Your task to perform on an android device: allow notifications from all sites in the chrome app Image 0: 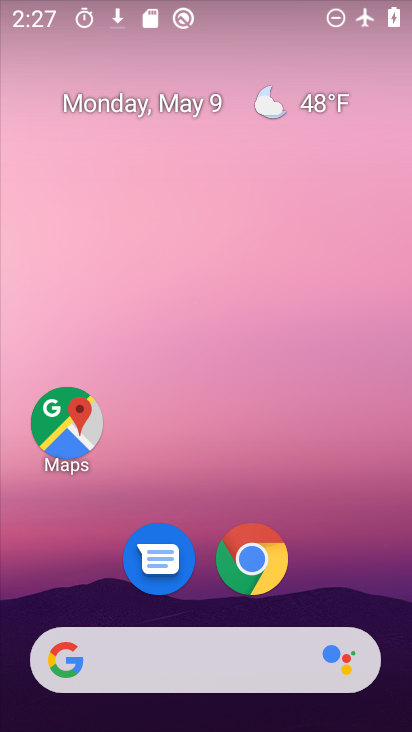
Step 0: click (397, 368)
Your task to perform on an android device: allow notifications from all sites in the chrome app Image 1: 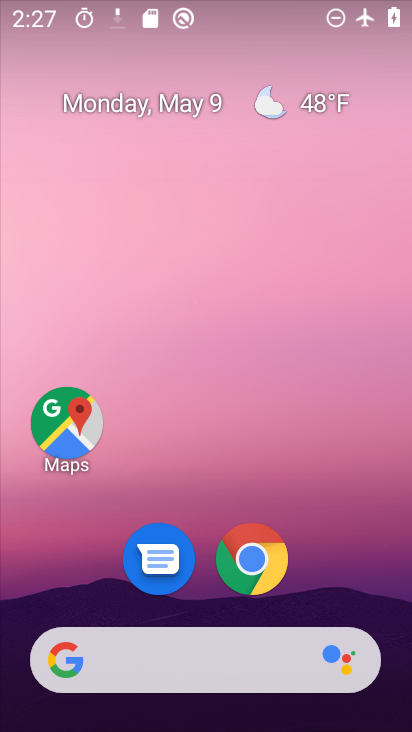
Step 1: drag from (219, 591) to (276, 18)
Your task to perform on an android device: allow notifications from all sites in the chrome app Image 2: 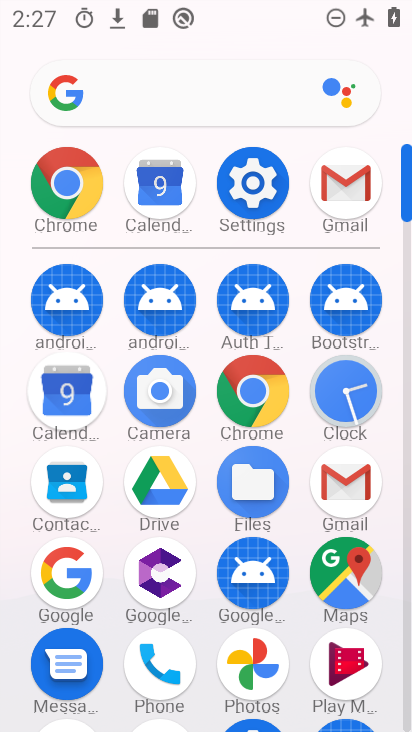
Step 2: click (253, 389)
Your task to perform on an android device: allow notifications from all sites in the chrome app Image 3: 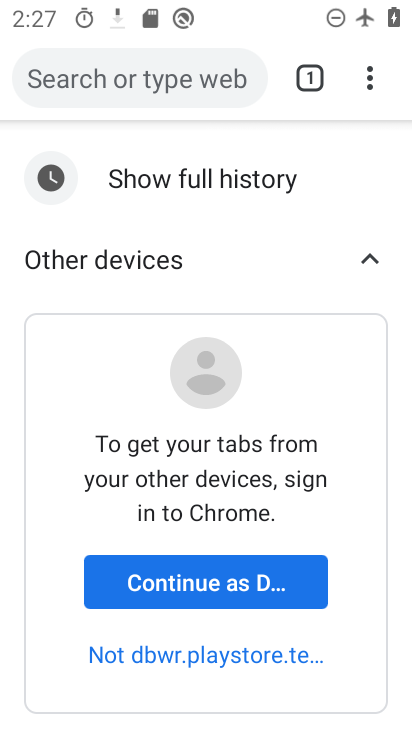
Step 3: drag from (255, 648) to (250, 280)
Your task to perform on an android device: allow notifications from all sites in the chrome app Image 4: 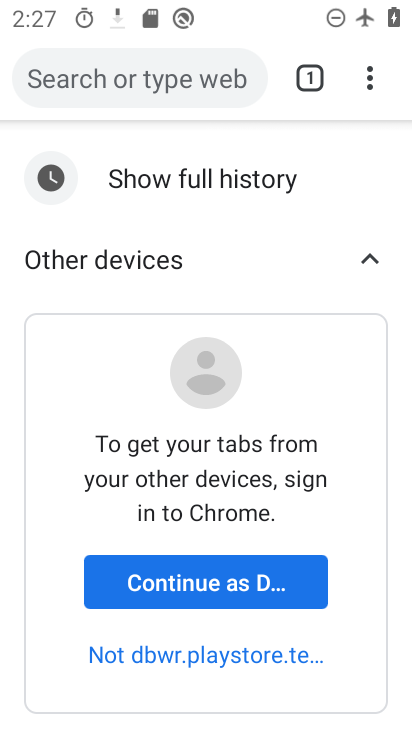
Step 4: click (369, 80)
Your task to perform on an android device: allow notifications from all sites in the chrome app Image 5: 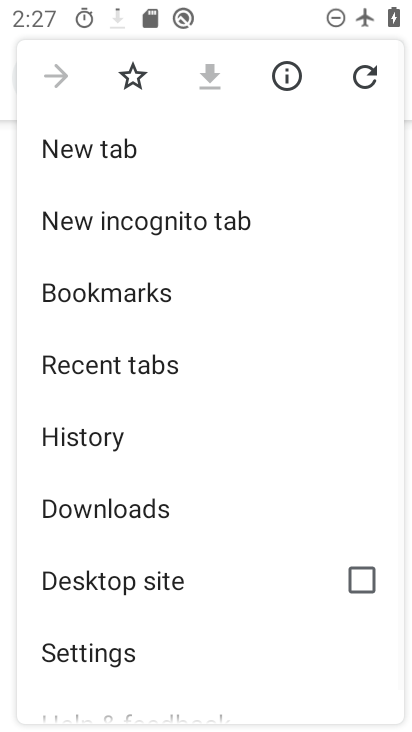
Step 5: drag from (148, 657) to (233, 229)
Your task to perform on an android device: allow notifications from all sites in the chrome app Image 6: 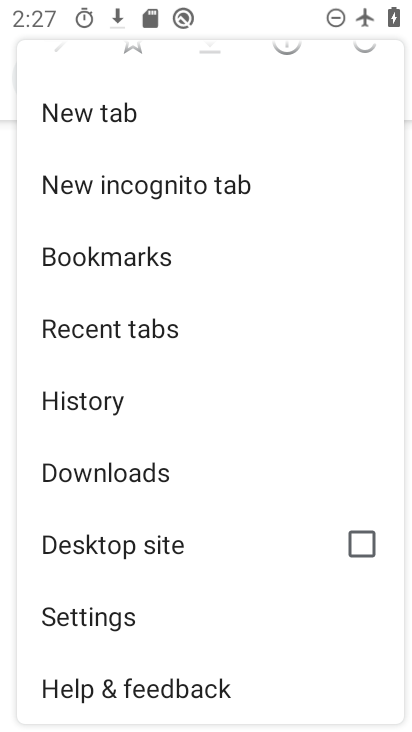
Step 6: click (139, 617)
Your task to perform on an android device: allow notifications from all sites in the chrome app Image 7: 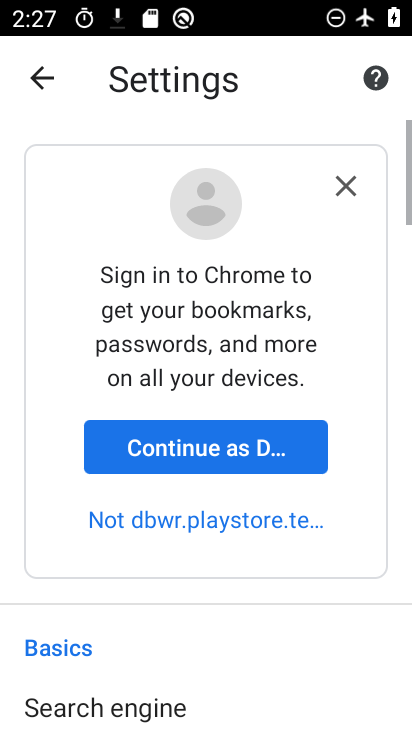
Step 7: drag from (162, 618) to (295, 288)
Your task to perform on an android device: allow notifications from all sites in the chrome app Image 8: 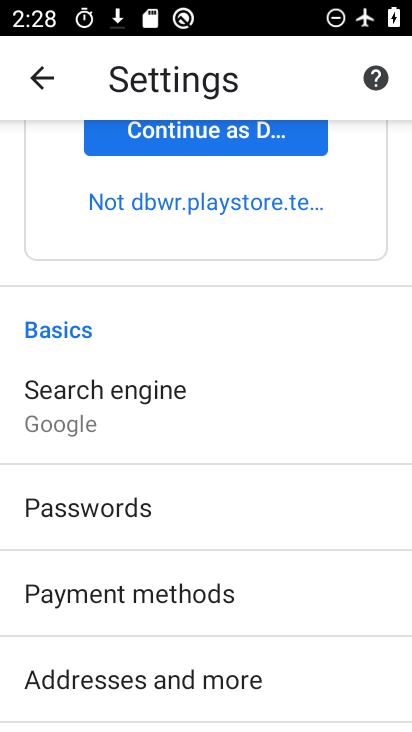
Step 8: drag from (260, 610) to (314, 238)
Your task to perform on an android device: allow notifications from all sites in the chrome app Image 9: 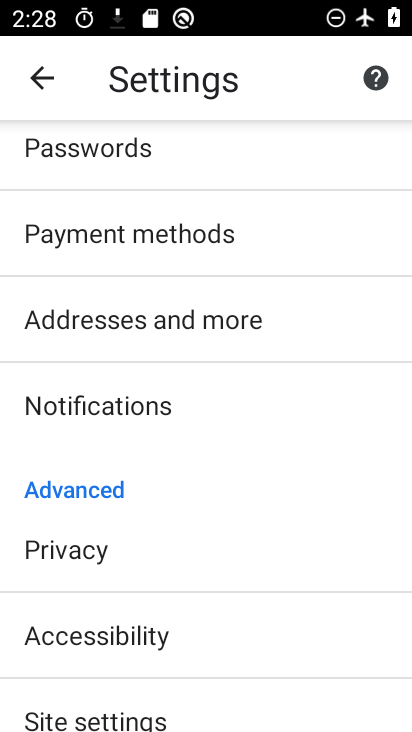
Step 9: drag from (180, 621) to (403, 106)
Your task to perform on an android device: allow notifications from all sites in the chrome app Image 10: 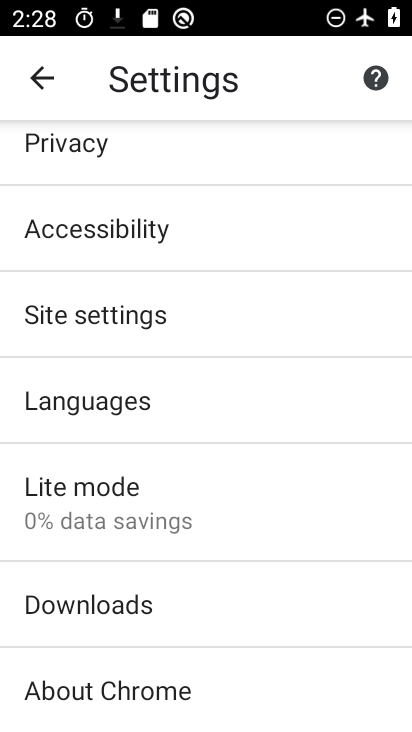
Step 10: click (121, 315)
Your task to perform on an android device: allow notifications from all sites in the chrome app Image 11: 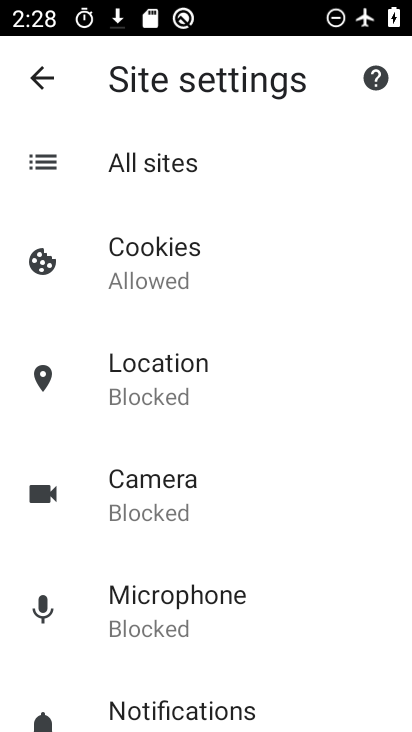
Step 11: drag from (223, 611) to (350, 214)
Your task to perform on an android device: allow notifications from all sites in the chrome app Image 12: 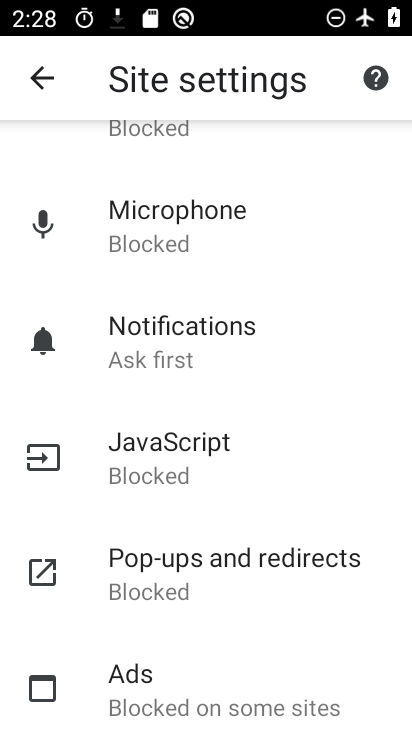
Step 12: click (172, 331)
Your task to perform on an android device: allow notifications from all sites in the chrome app Image 13: 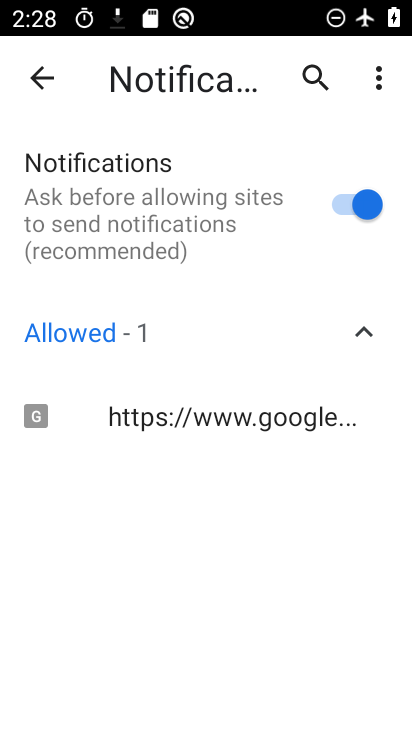
Step 13: task complete